Your task to perform on an android device: show emergency info Image 0: 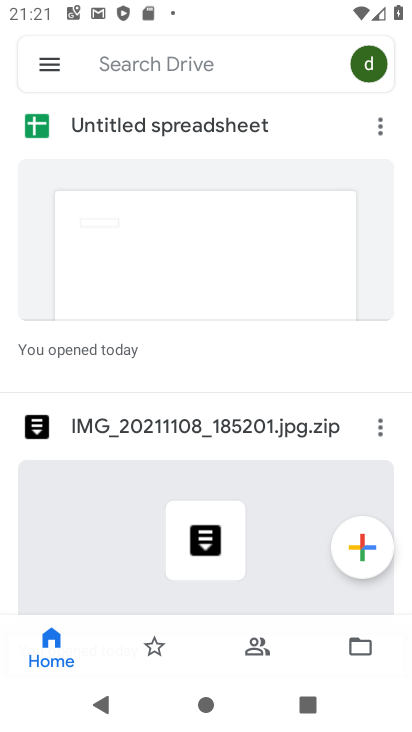
Step 0: press home button
Your task to perform on an android device: show emergency info Image 1: 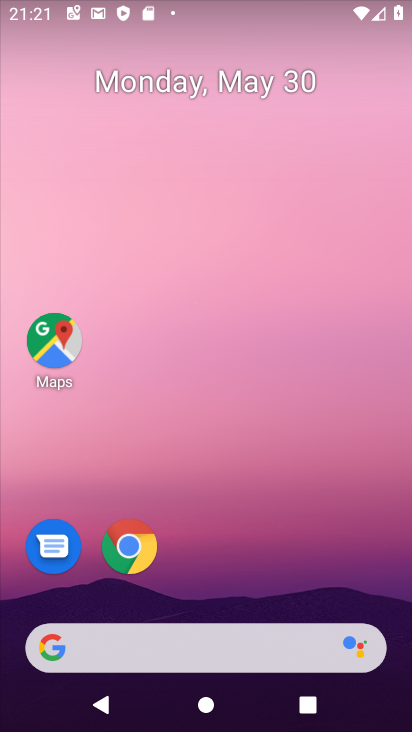
Step 1: drag from (349, 577) to (356, 199)
Your task to perform on an android device: show emergency info Image 2: 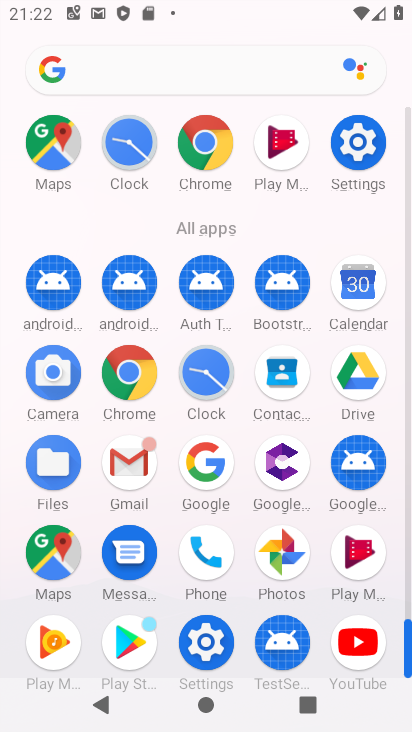
Step 2: click (367, 174)
Your task to perform on an android device: show emergency info Image 3: 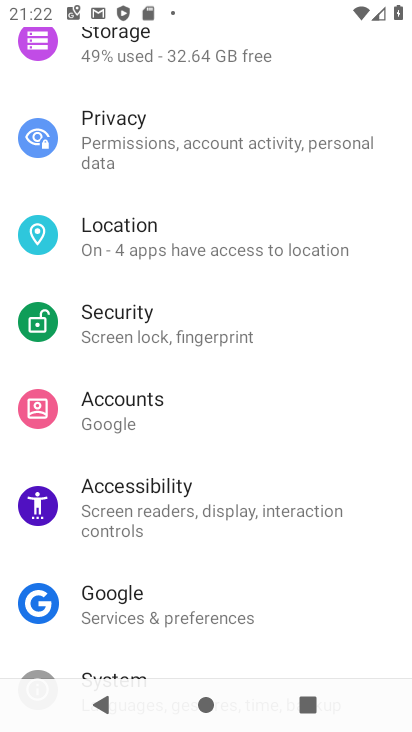
Step 3: drag from (316, 615) to (294, 215)
Your task to perform on an android device: show emergency info Image 4: 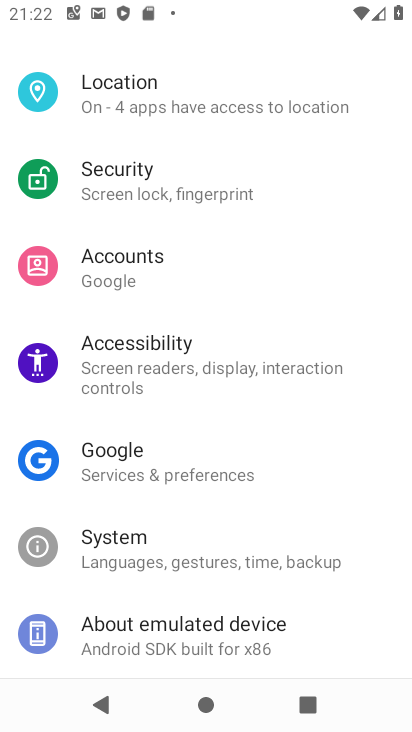
Step 4: drag from (318, 294) to (319, 586)
Your task to perform on an android device: show emergency info Image 5: 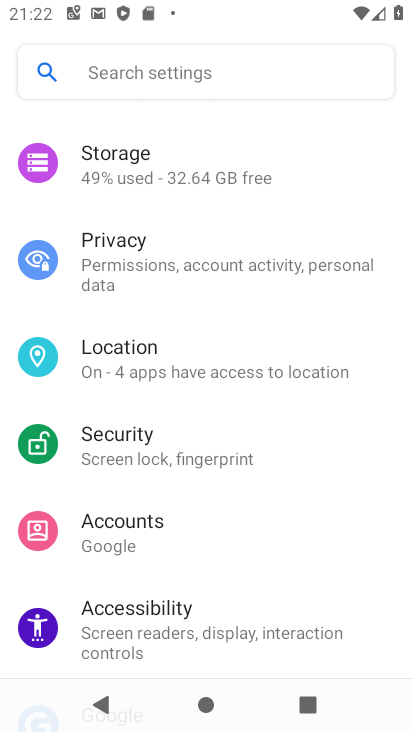
Step 5: drag from (305, 571) to (313, 200)
Your task to perform on an android device: show emergency info Image 6: 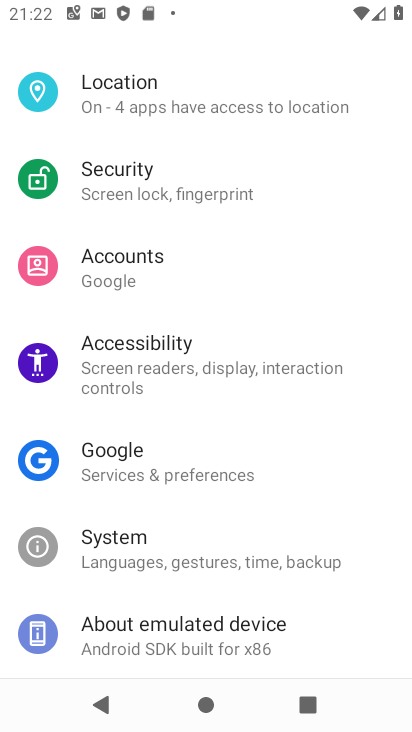
Step 6: click (215, 659)
Your task to perform on an android device: show emergency info Image 7: 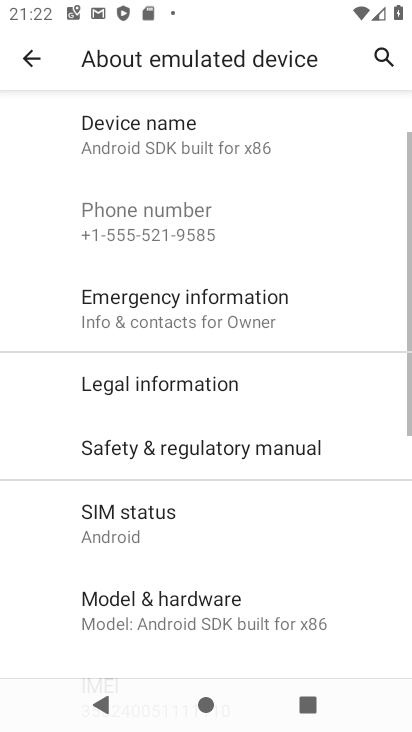
Step 7: click (276, 306)
Your task to perform on an android device: show emergency info Image 8: 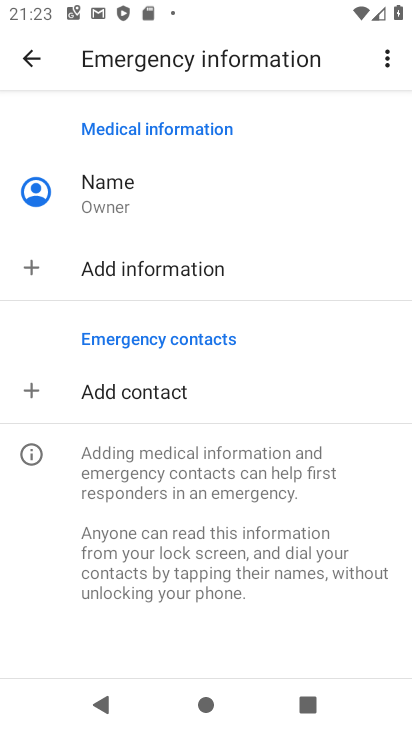
Step 8: task complete